Your task to perform on an android device: snooze an email in the gmail app Image 0: 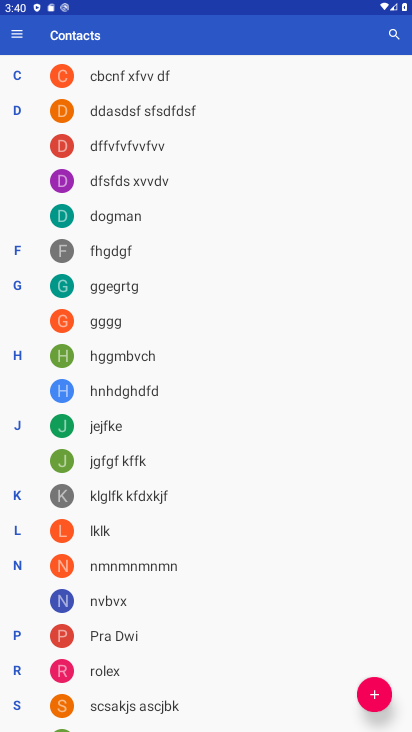
Step 0: press back button
Your task to perform on an android device: snooze an email in the gmail app Image 1: 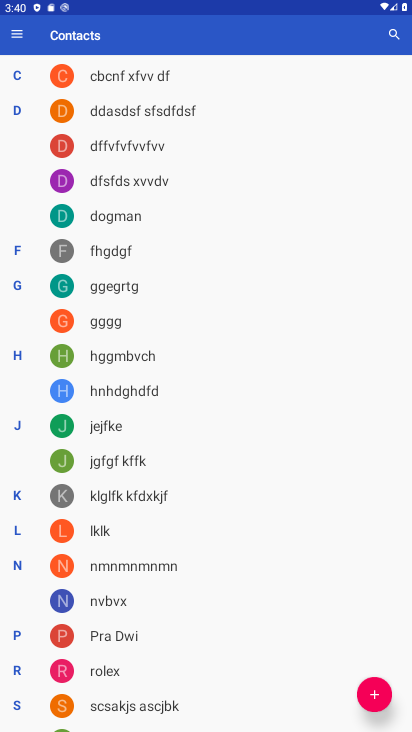
Step 1: press back button
Your task to perform on an android device: snooze an email in the gmail app Image 2: 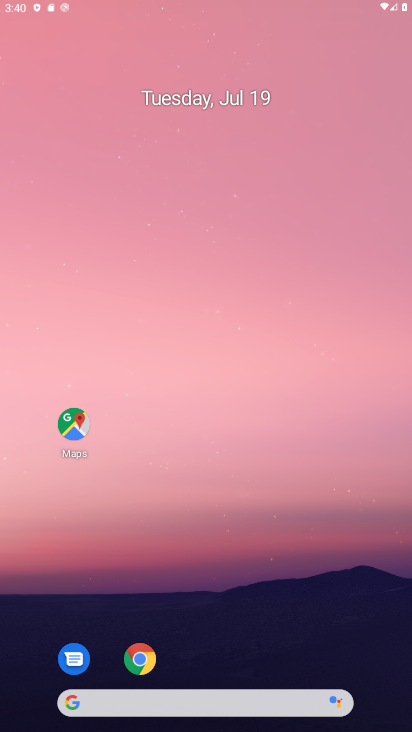
Step 2: press back button
Your task to perform on an android device: snooze an email in the gmail app Image 3: 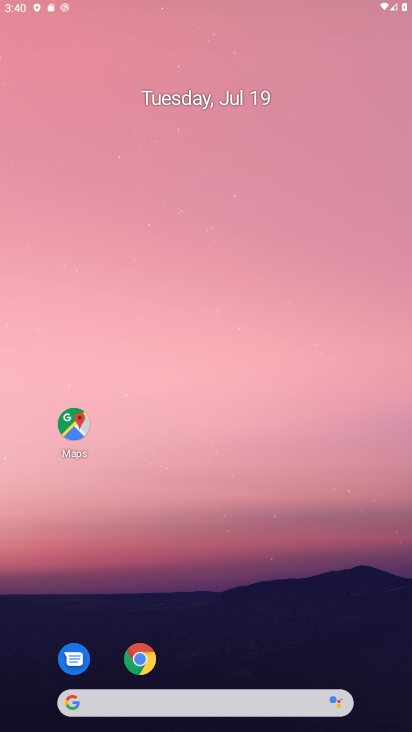
Step 3: click (285, 137)
Your task to perform on an android device: snooze an email in the gmail app Image 4: 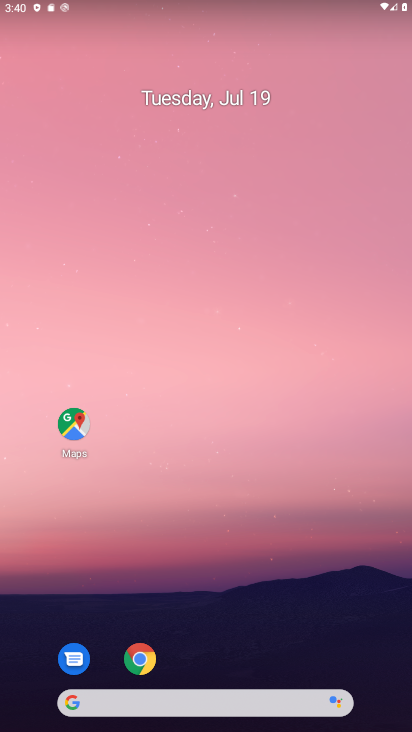
Step 4: drag from (172, 548) to (207, 86)
Your task to perform on an android device: snooze an email in the gmail app Image 5: 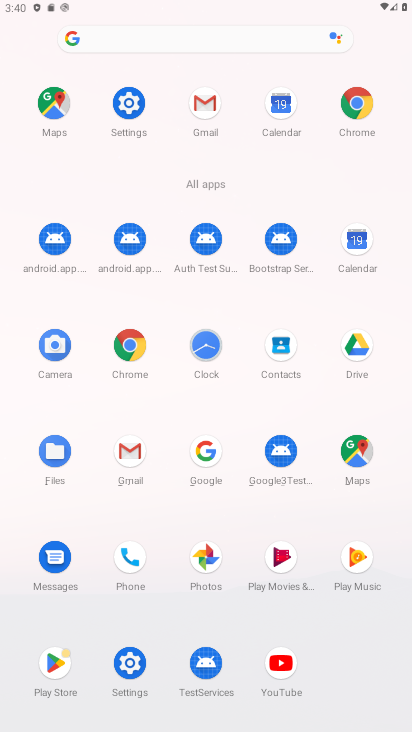
Step 5: click (202, 106)
Your task to perform on an android device: snooze an email in the gmail app Image 6: 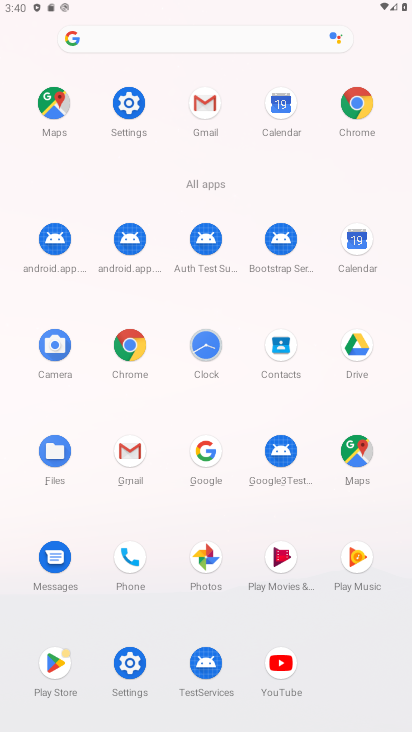
Step 6: click (203, 105)
Your task to perform on an android device: snooze an email in the gmail app Image 7: 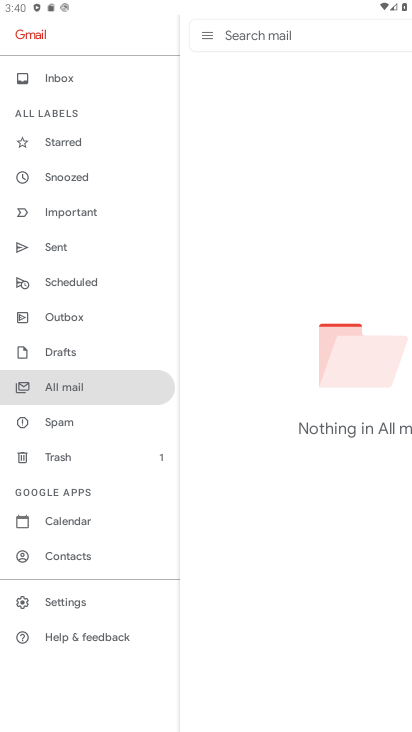
Step 7: click (91, 387)
Your task to perform on an android device: snooze an email in the gmail app Image 8: 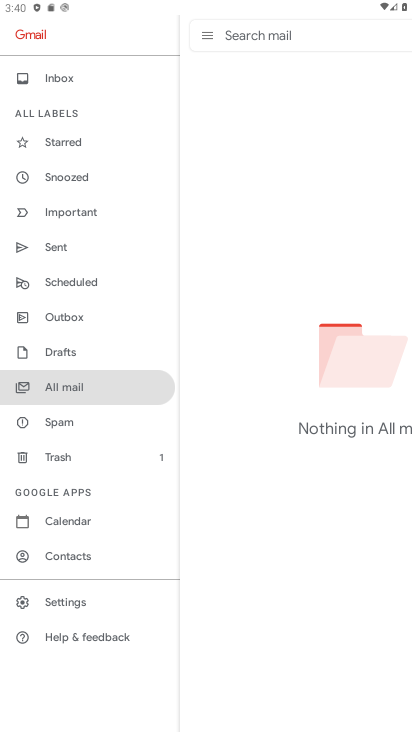
Step 8: click (91, 387)
Your task to perform on an android device: snooze an email in the gmail app Image 9: 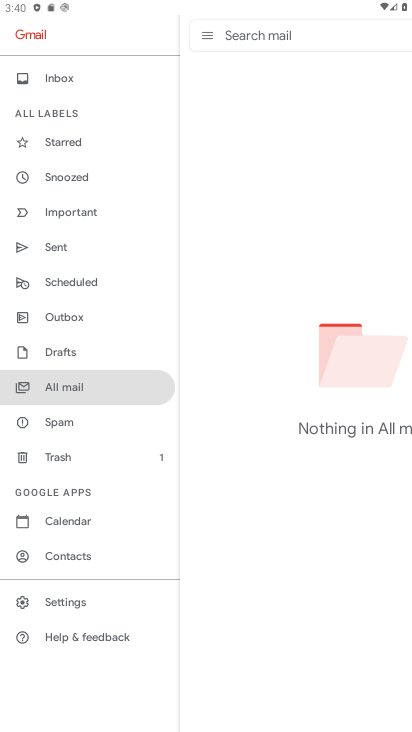
Step 9: click (91, 387)
Your task to perform on an android device: snooze an email in the gmail app Image 10: 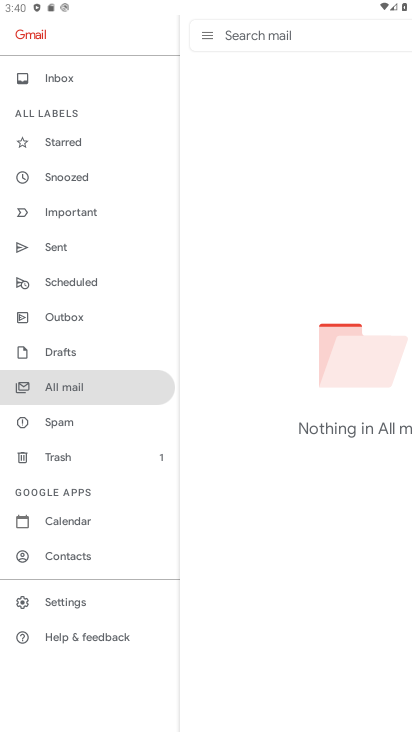
Step 10: task complete